Your task to perform on an android device: turn off notifications settings in the gmail app Image 0: 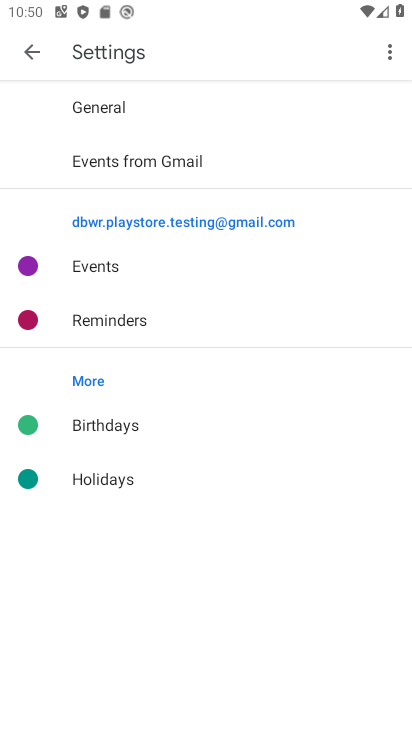
Step 0: press back button
Your task to perform on an android device: turn off notifications settings in the gmail app Image 1: 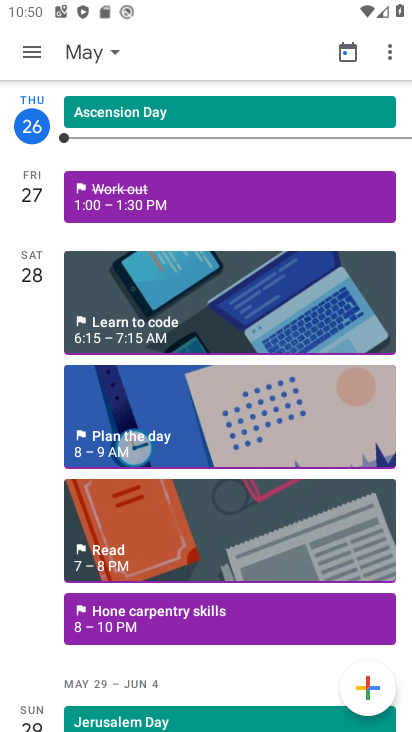
Step 1: press home button
Your task to perform on an android device: turn off notifications settings in the gmail app Image 2: 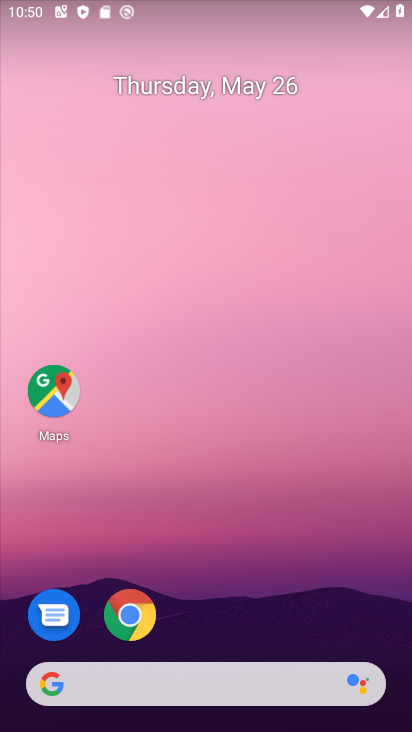
Step 2: drag from (207, 614) to (260, 22)
Your task to perform on an android device: turn off notifications settings in the gmail app Image 3: 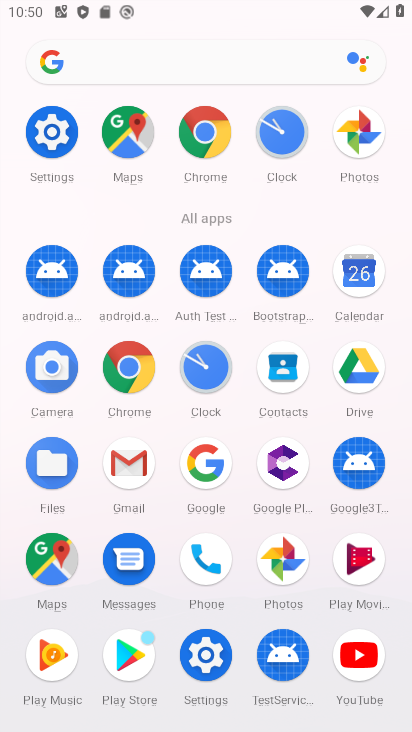
Step 3: click (126, 455)
Your task to perform on an android device: turn off notifications settings in the gmail app Image 4: 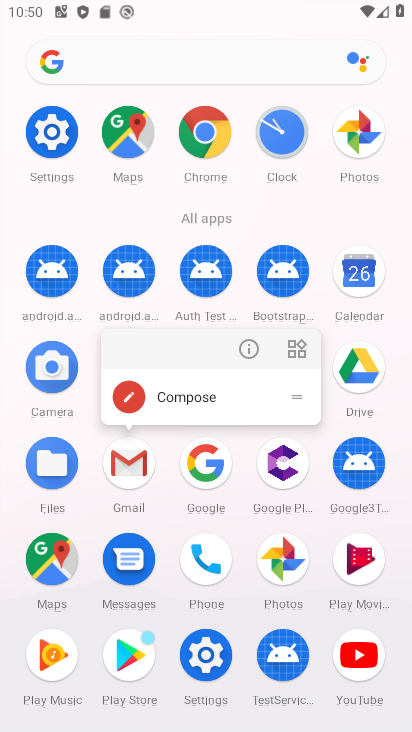
Step 4: click (244, 347)
Your task to perform on an android device: turn off notifications settings in the gmail app Image 5: 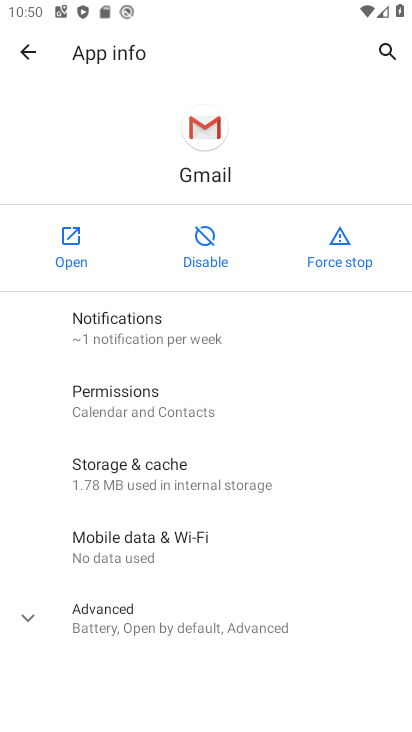
Step 5: click (210, 333)
Your task to perform on an android device: turn off notifications settings in the gmail app Image 6: 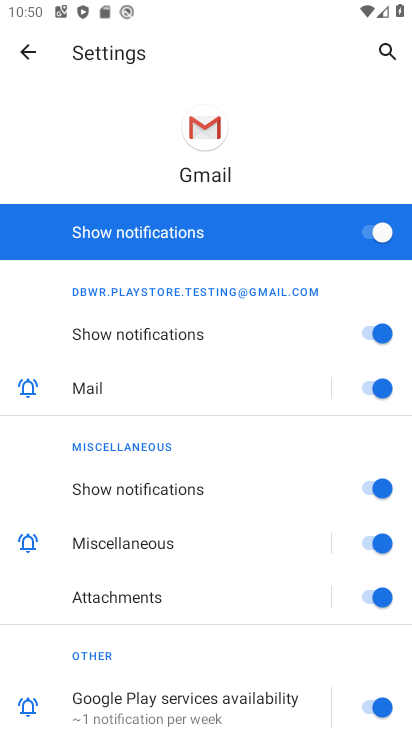
Step 6: click (377, 229)
Your task to perform on an android device: turn off notifications settings in the gmail app Image 7: 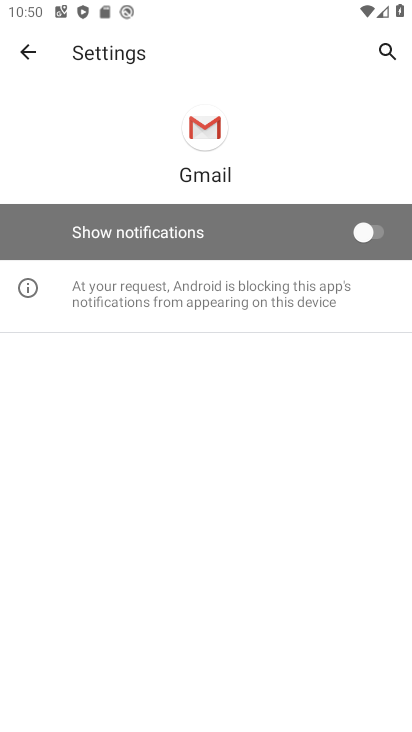
Step 7: task complete